Your task to perform on an android device: Search for the best rated 4K TV on Best Buy. Image 0: 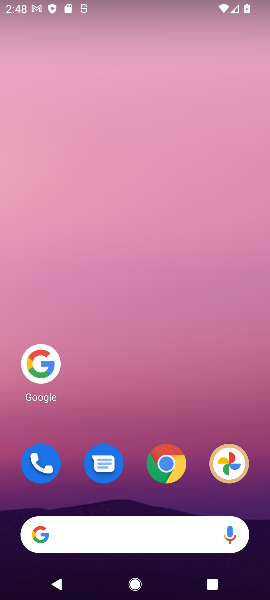
Step 0: click (23, 354)
Your task to perform on an android device: Search for the best rated 4K TV on Best Buy. Image 1: 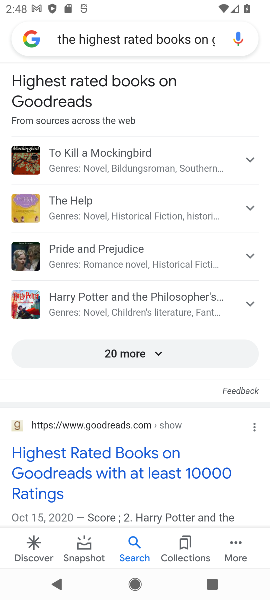
Step 1: click (156, 34)
Your task to perform on an android device: Search for the best rated 4K TV on Best Buy. Image 2: 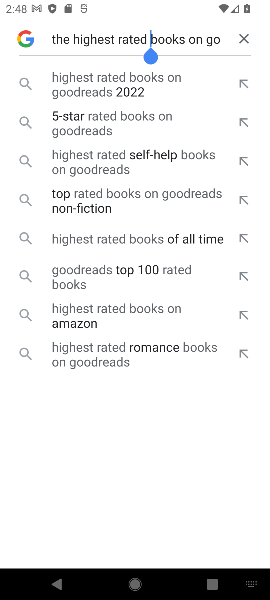
Step 2: click (251, 40)
Your task to perform on an android device: Search for the best rated 4K TV on Best Buy. Image 3: 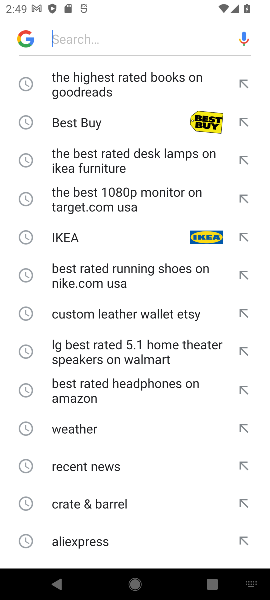
Step 3: click (128, 36)
Your task to perform on an android device: Search for the best rated 4K TV on Best Buy. Image 4: 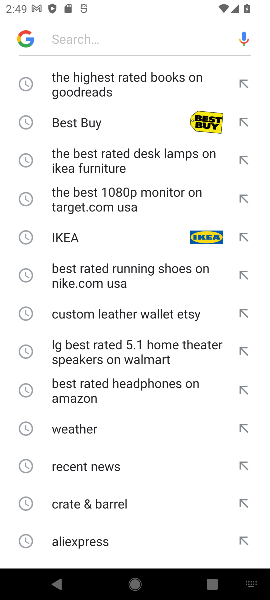
Step 4: type " the best rated 4K TV on Best Buy "
Your task to perform on an android device: Search for the best rated 4K TV on Best Buy. Image 5: 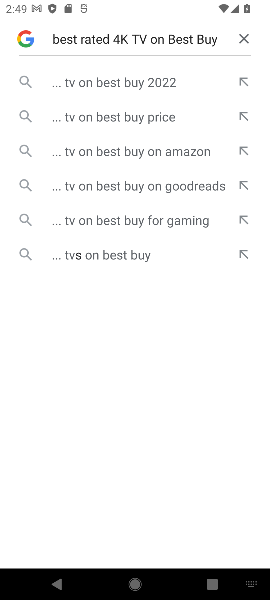
Step 5: click (107, 121)
Your task to perform on an android device: Search for the best rated 4K TV on Best Buy. Image 6: 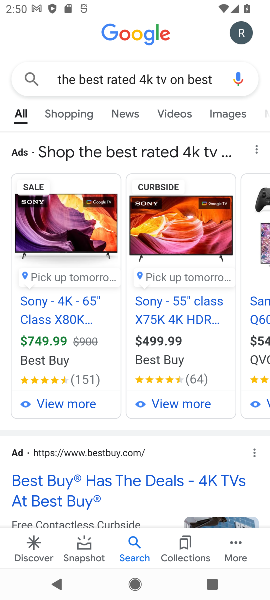
Step 6: task complete